Your task to perform on an android device: Open Reddit.com Image 0: 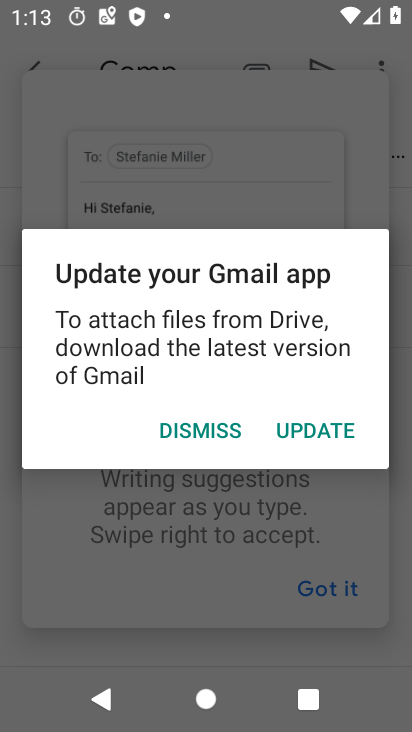
Step 0: press home button
Your task to perform on an android device: Open Reddit.com Image 1: 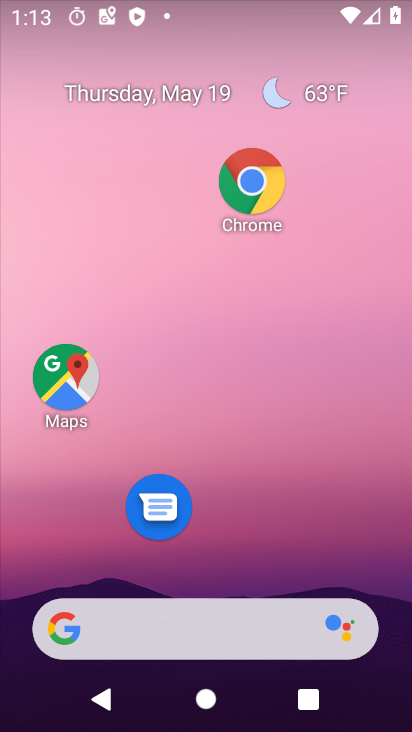
Step 1: click (244, 194)
Your task to perform on an android device: Open Reddit.com Image 2: 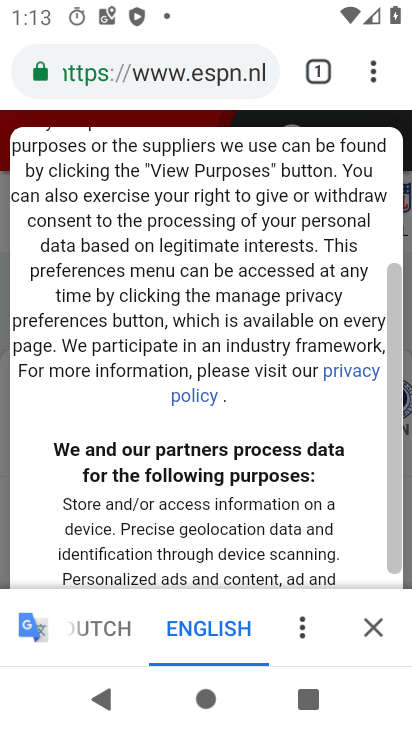
Step 2: click (221, 76)
Your task to perform on an android device: Open Reddit.com Image 3: 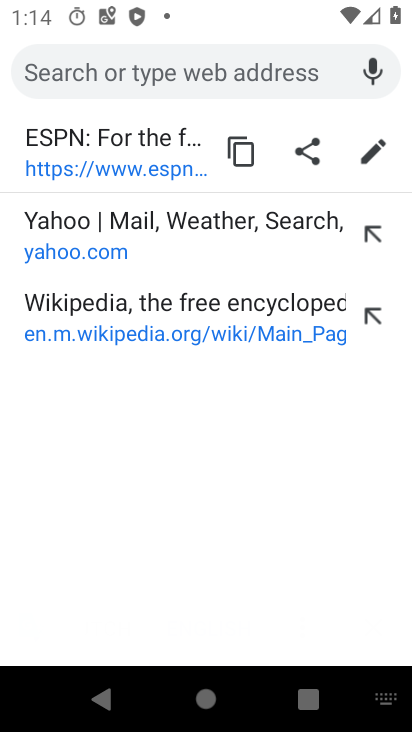
Step 3: type "www.reddit.com"
Your task to perform on an android device: Open Reddit.com Image 4: 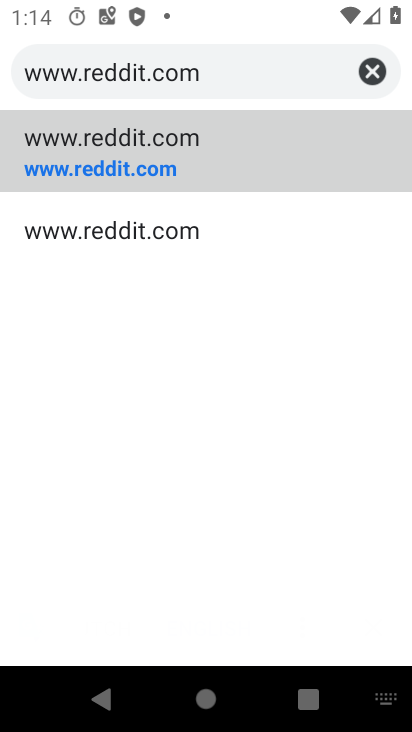
Step 4: click (152, 169)
Your task to perform on an android device: Open Reddit.com Image 5: 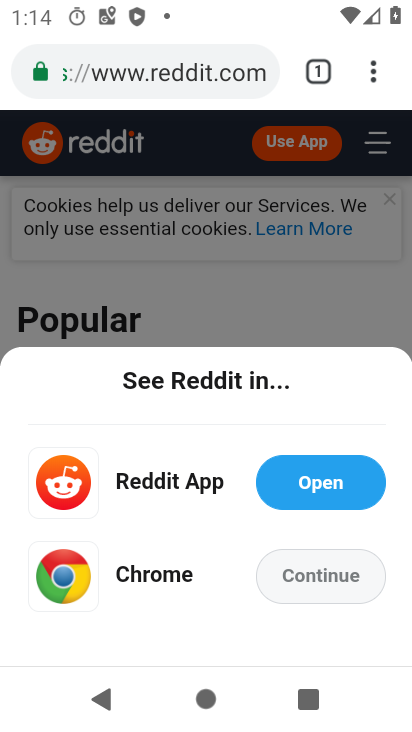
Step 5: click (311, 598)
Your task to perform on an android device: Open Reddit.com Image 6: 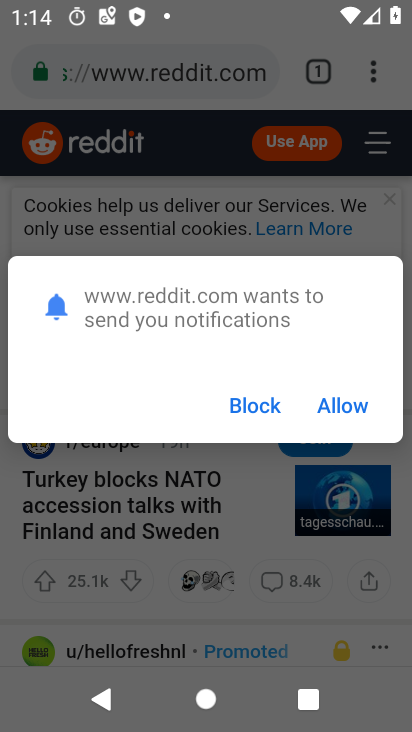
Step 6: click (256, 407)
Your task to perform on an android device: Open Reddit.com Image 7: 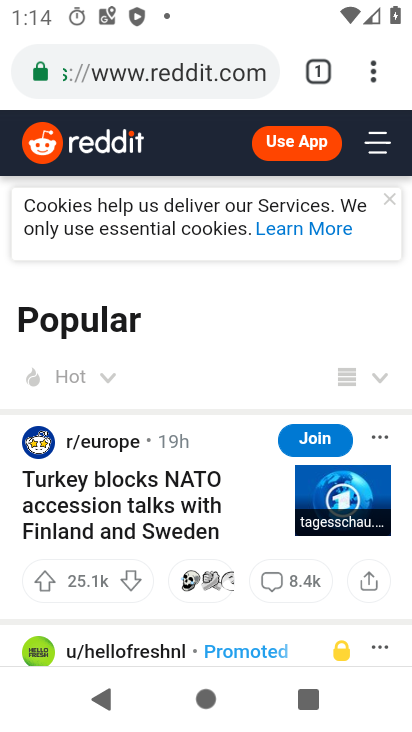
Step 7: task complete